Your task to perform on an android device: turn pop-ups off in chrome Image 0: 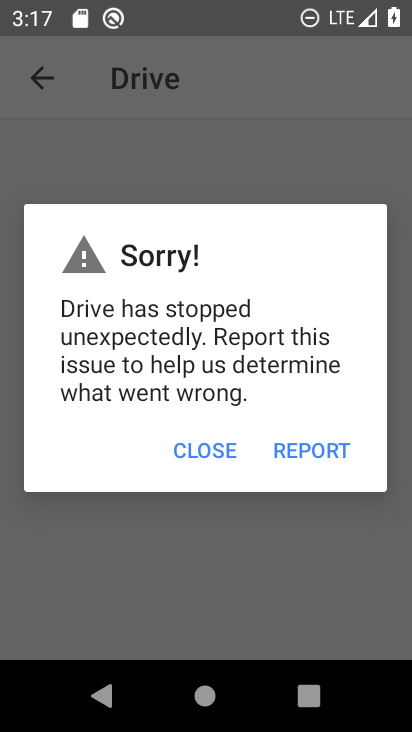
Step 0: press back button
Your task to perform on an android device: turn pop-ups off in chrome Image 1: 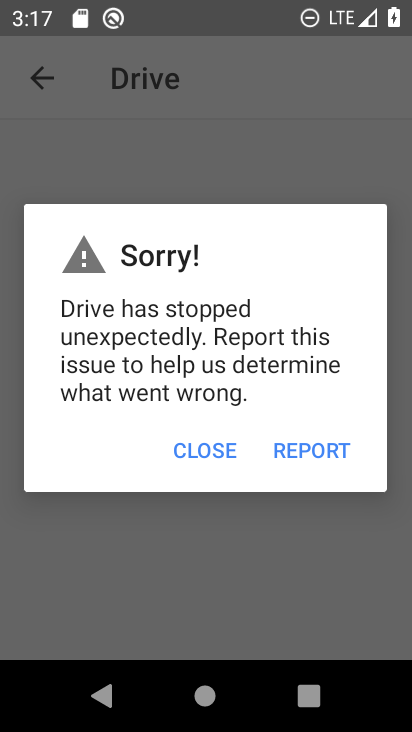
Step 1: press back button
Your task to perform on an android device: turn pop-ups off in chrome Image 2: 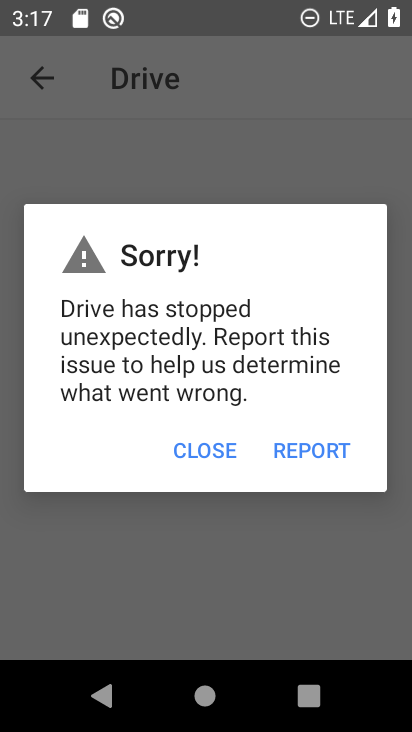
Step 2: press home button
Your task to perform on an android device: turn pop-ups off in chrome Image 3: 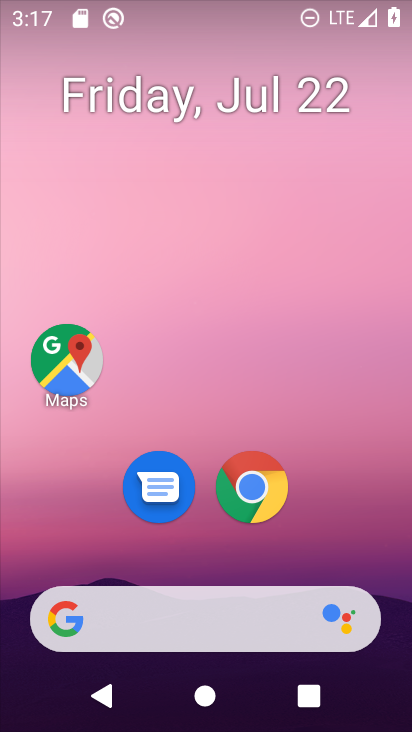
Step 3: click (251, 473)
Your task to perform on an android device: turn pop-ups off in chrome Image 4: 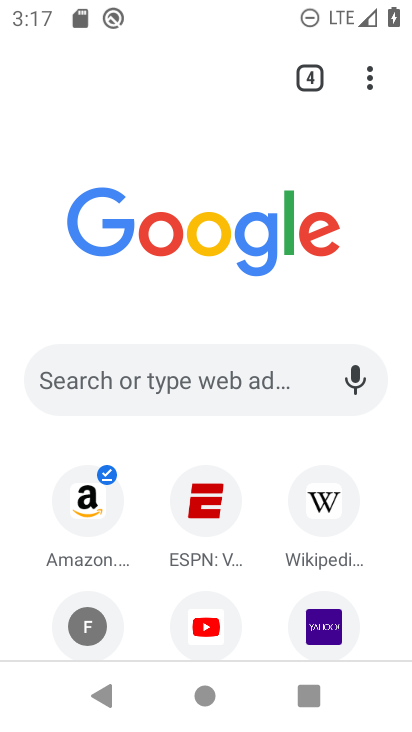
Step 4: drag from (373, 72) to (102, 549)
Your task to perform on an android device: turn pop-ups off in chrome Image 5: 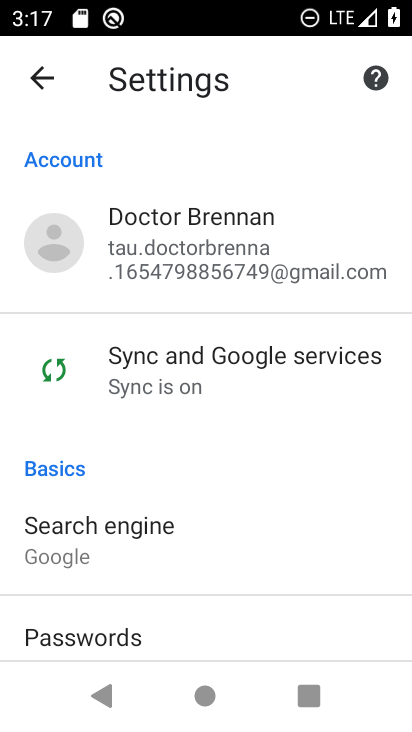
Step 5: drag from (187, 610) to (267, 130)
Your task to perform on an android device: turn pop-ups off in chrome Image 6: 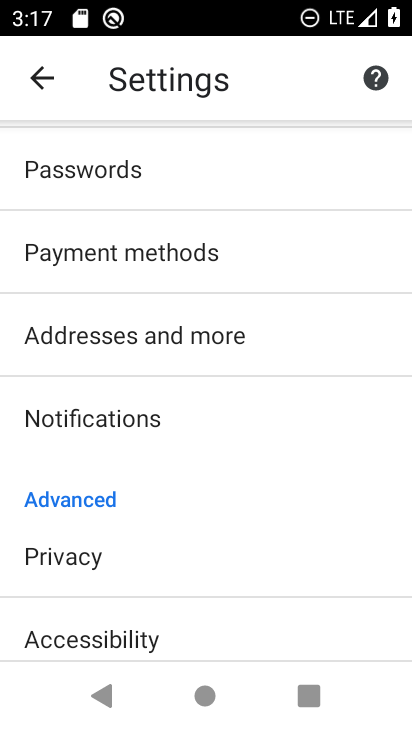
Step 6: drag from (171, 575) to (238, 58)
Your task to perform on an android device: turn pop-ups off in chrome Image 7: 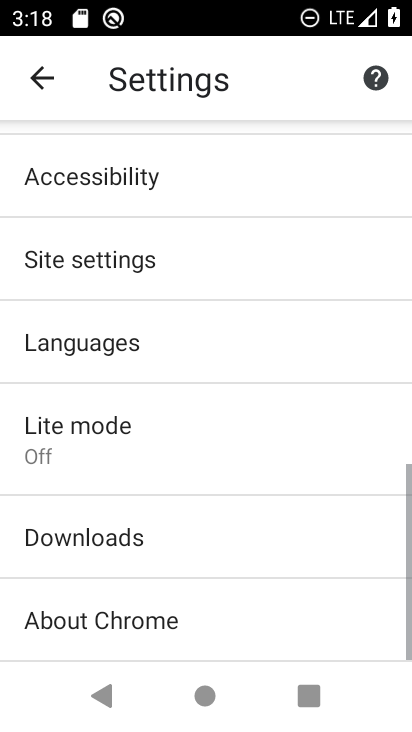
Step 7: click (105, 265)
Your task to perform on an android device: turn pop-ups off in chrome Image 8: 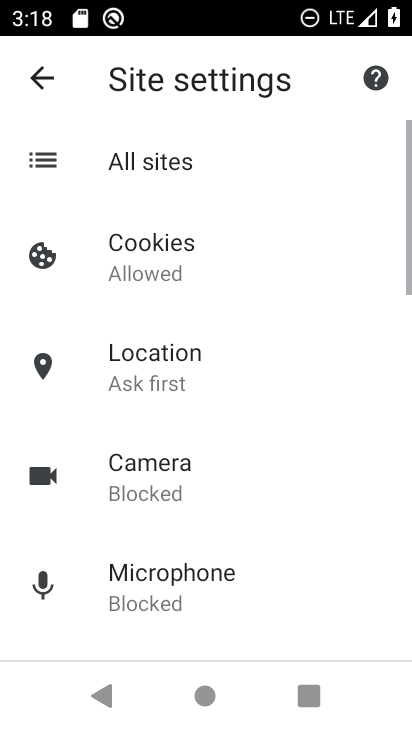
Step 8: drag from (135, 566) to (234, 23)
Your task to perform on an android device: turn pop-ups off in chrome Image 9: 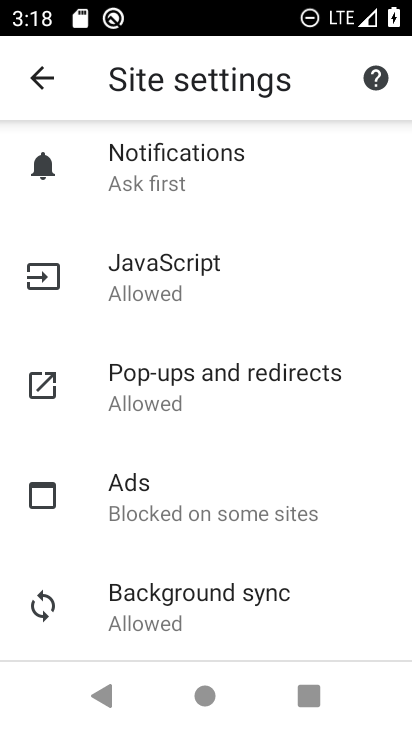
Step 9: click (211, 385)
Your task to perform on an android device: turn pop-ups off in chrome Image 10: 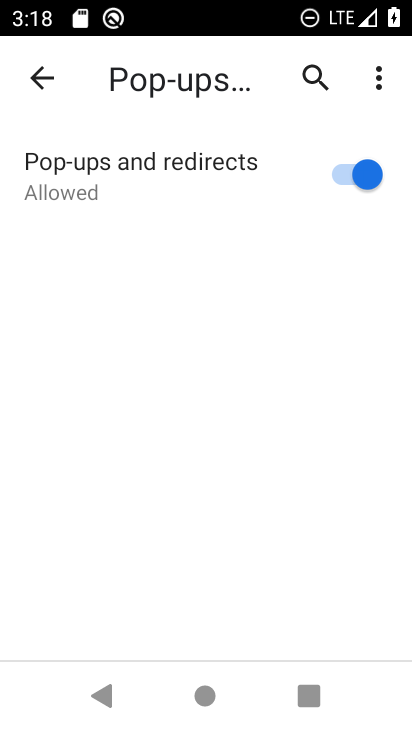
Step 10: click (356, 174)
Your task to perform on an android device: turn pop-ups off in chrome Image 11: 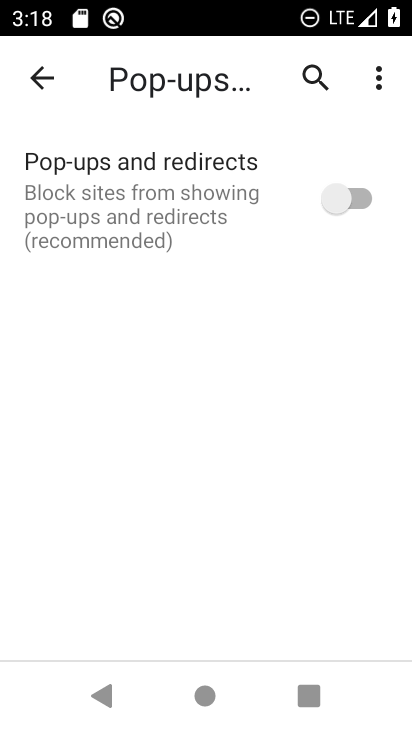
Step 11: task complete